Your task to perform on an android device: change the clock display to analog Image 0: 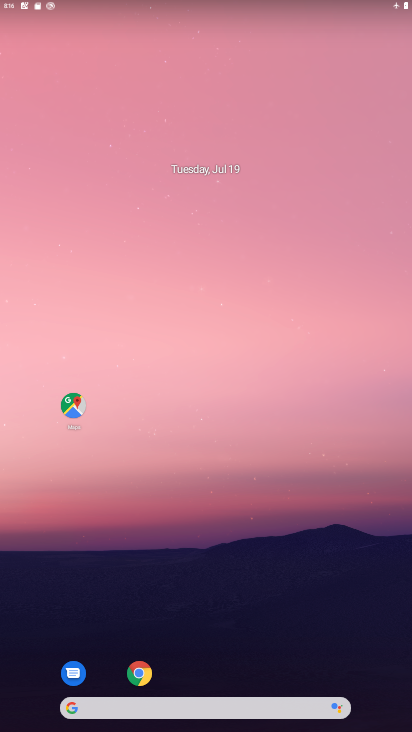
Step 0: drag from (236, 704) to (204, 101)
Your task to perform on an android device: change the clock display to analog Image 1: 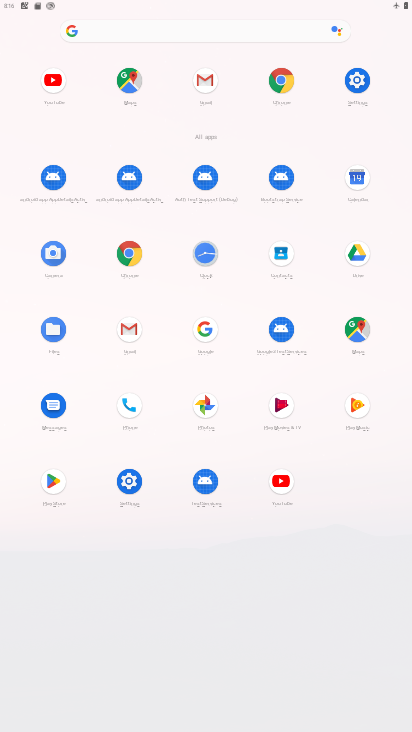
Step 1: click (355, 74)
Your task to perform on an android device: change the clock display to analog Image 2: 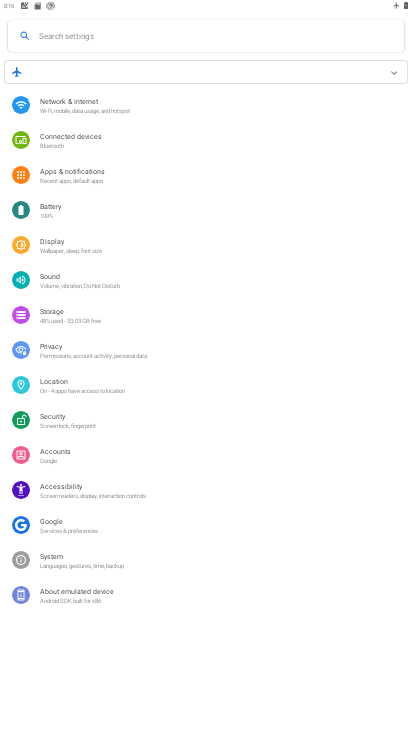
Step 2: press home button
Your task to perform on an android device: change the clock display to analog Image 3: 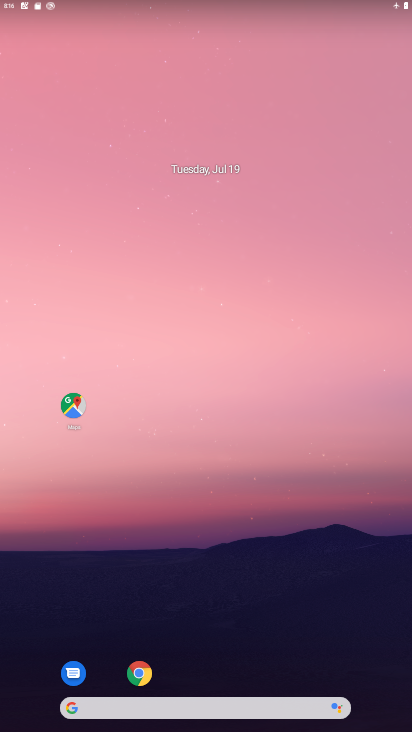
Step 3: drag from (257, 708) to (238, 99)
Your task to perform on an android device: change the clock display to analog Image 4: 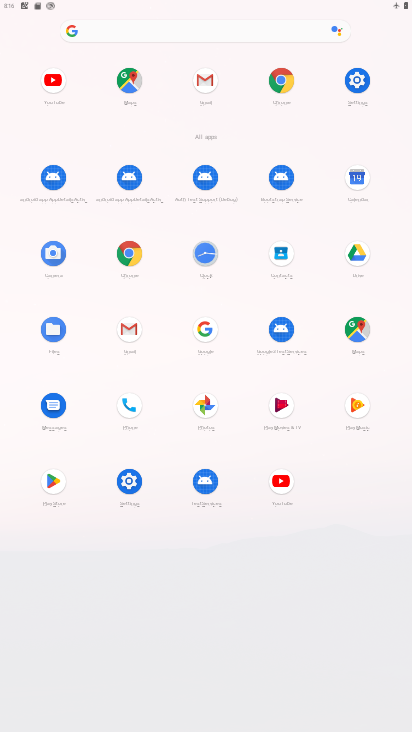
Step 4: click (201, 254)
Your task to perform on an android device: change the clock display to analog Image 5: 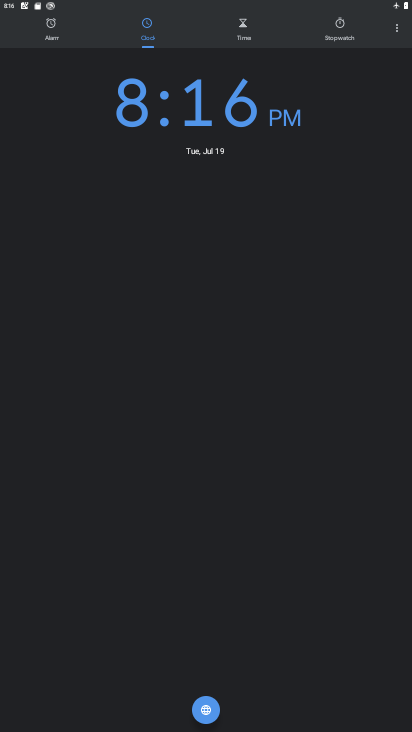
Step 5: click (399, 30)
Your task to perform on an android device: change the clock display to analog Image 6: 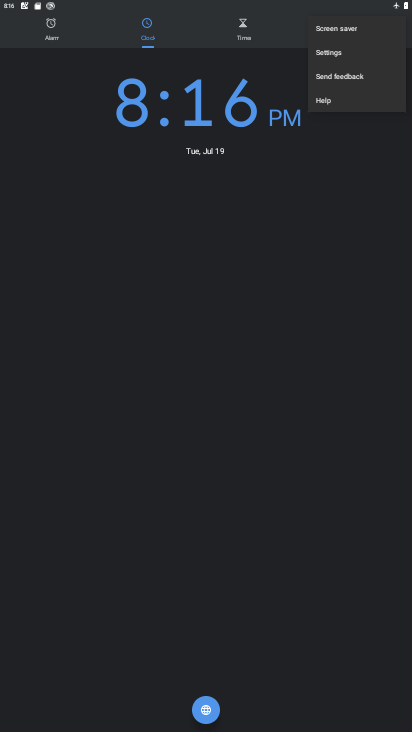
Step 6: click (340, 55)
Your task to perform on an android device: change the clock display to analog Image 7: 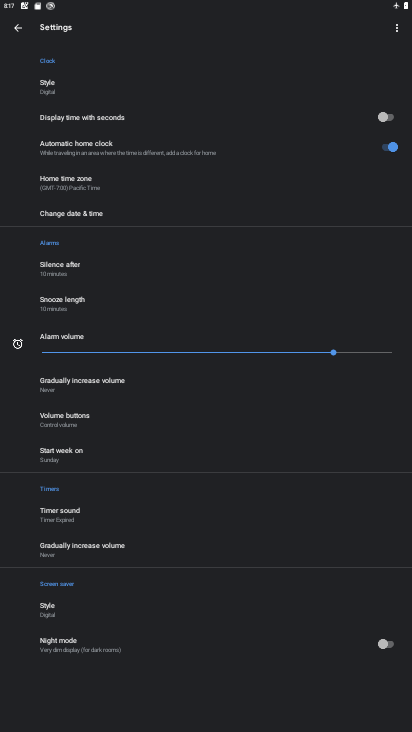
Step 7: click (72, 87)
Your task to perform on an android device: change the clock display to analog Image 8: 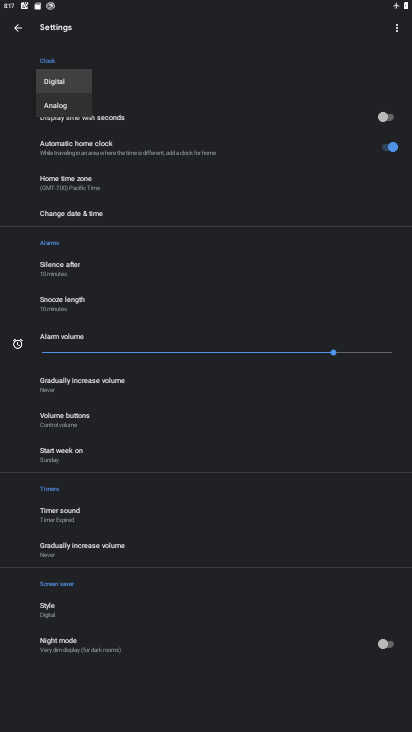
Step 8: click (61, 105)
Your task to perform on an android device: change the clock display to analog Image 9: 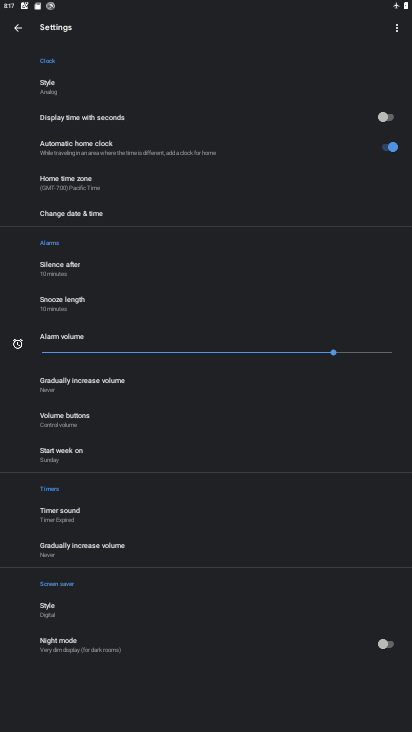
Step 9: task complete